Your task to perform on an android device: Open Chrome and go to settings Image 0: 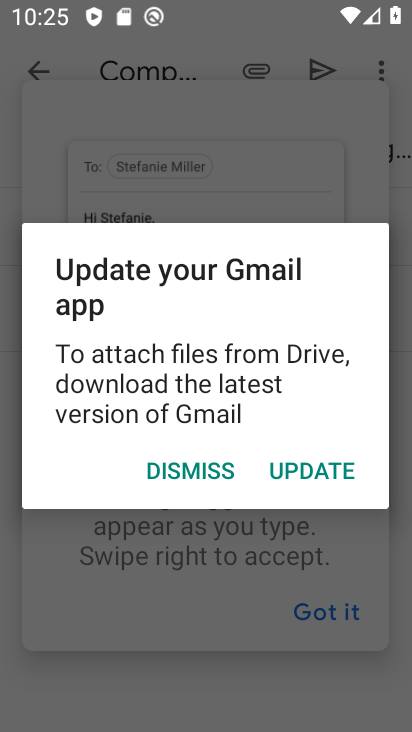
Step 0: press home button
Your task to perform on an android device: Open Chrome and go to settings Image 1: 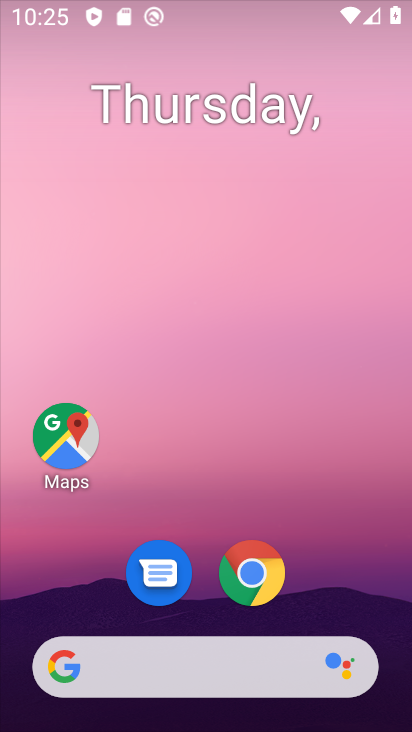
Step 1: drag from (332, 510) to (297, 99)
Your task to perform on an android device: Open Chrome and go to settings Image 2: 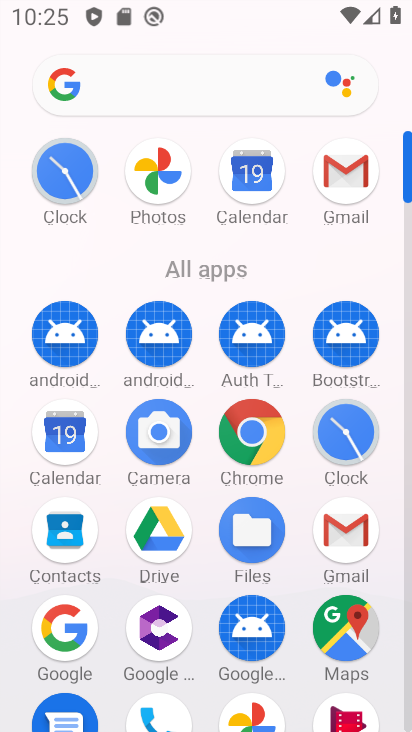
Step 2: click (252, 428)
Your task to perform on an android device: Open Chrome and go to settings Image 3: 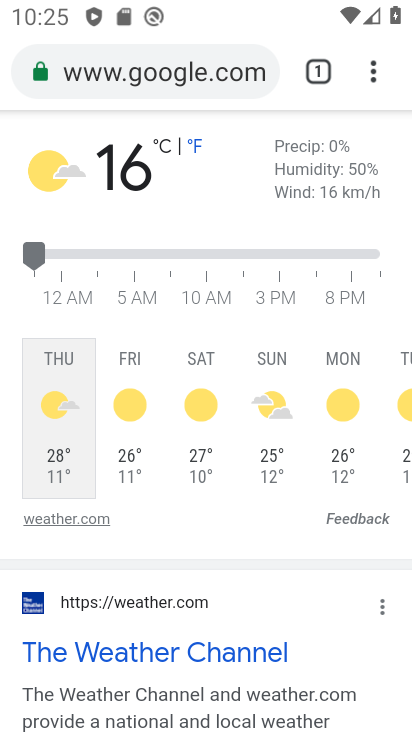
Step 3: click (384, 62)
Your task to perform on an android device: Open Chrome and go to settings Image 4: 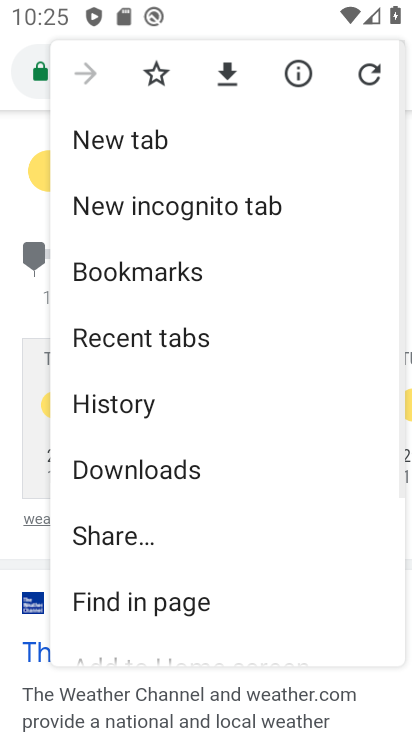
Step 4: drag from (152, 568) to (245, 189)
Your task to perform on an android device: Open Chrome and go to settings Image 5: 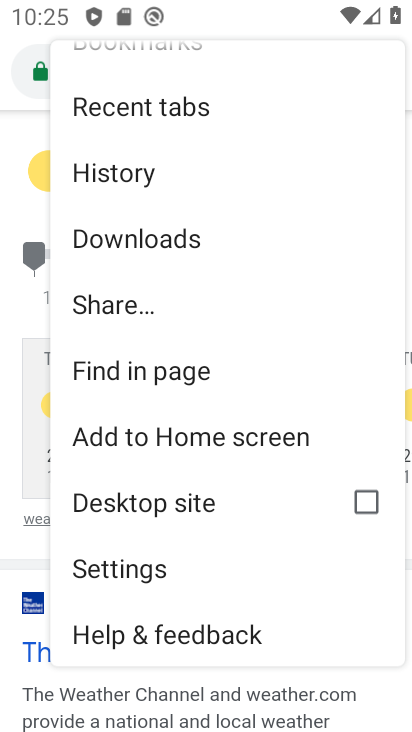
Step 5: click (166, 573)
Your task to perform on an android device: Open Chrome and go to settings Image 6: 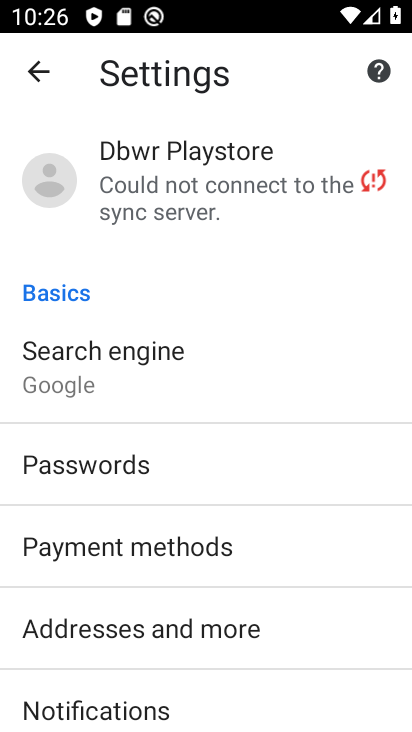
Step 6: task complete